Your task to perform on an android device: Search for Mexican restaurants on Maps Image 0: 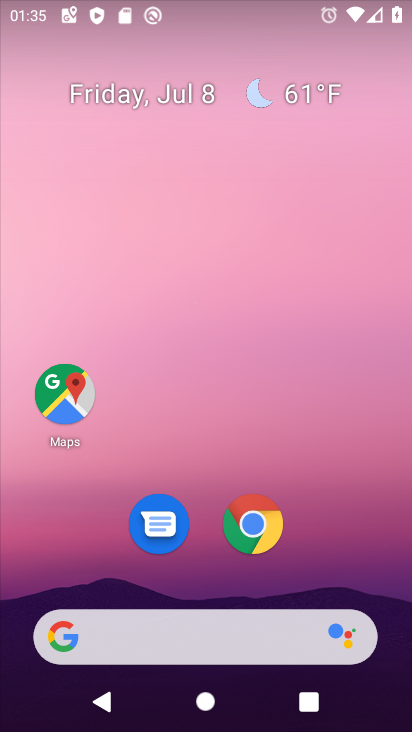
Step 0: drag from (274, 433) to (269, 363)
Your task to perform on an android device: Search for Mexican restaurants on Maps Image 1: 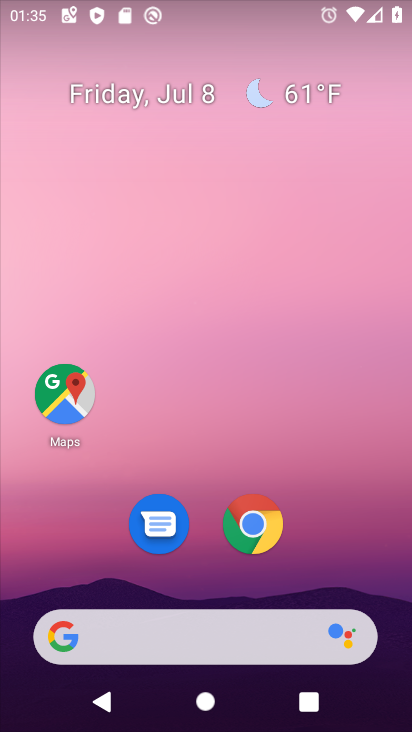
Step 1: click (52, 401)
Your task to perform on an android device: Search for Mexican restaurants on Maps Image 2: 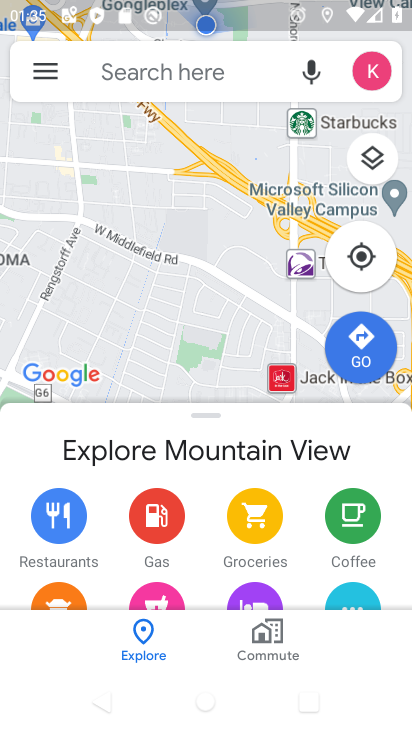
Step 2: click (210, 72)
Your task to perform on an android device: Search for Mexican restaurants on Maps Image 3: 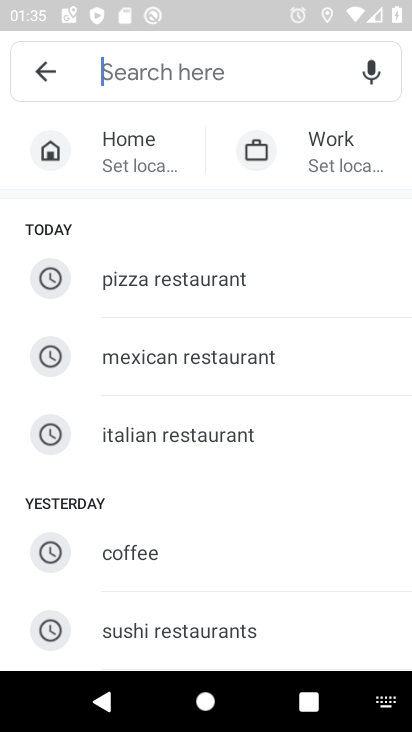
Step 3: click (186, 355)
Your task to perform on an android device: Search for Mexican restaurants on Maps Image 4: 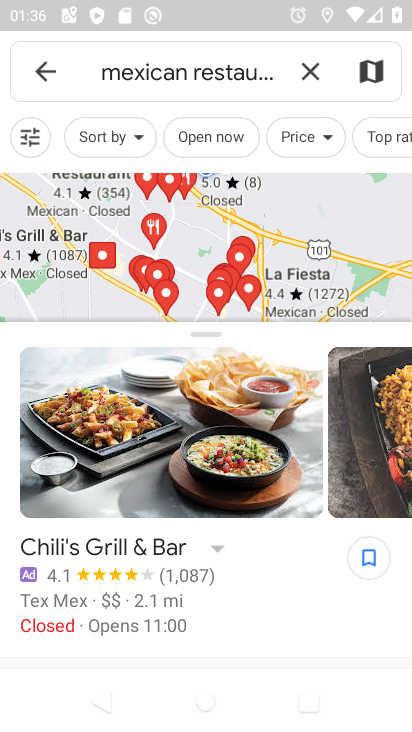
Step 4: task complete